Your task to perform on an android device: Go to Yahoo.com Image 0: 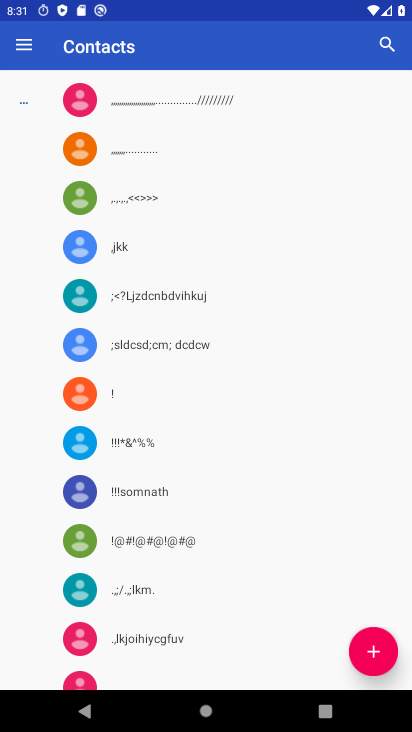
Step 0: press home button
Your task to perform on an android device: Go to Yahoo.com Image 1: 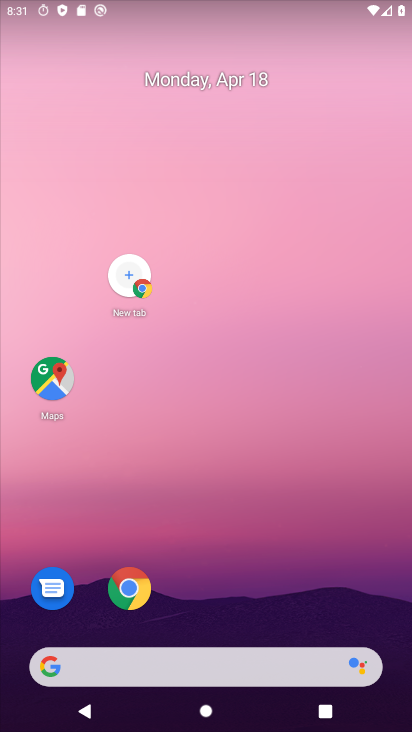
Step 1: drag from (357, 388) to (374, 106)
Your task to perform on an android device: Go to Yahoo.com Image 2: 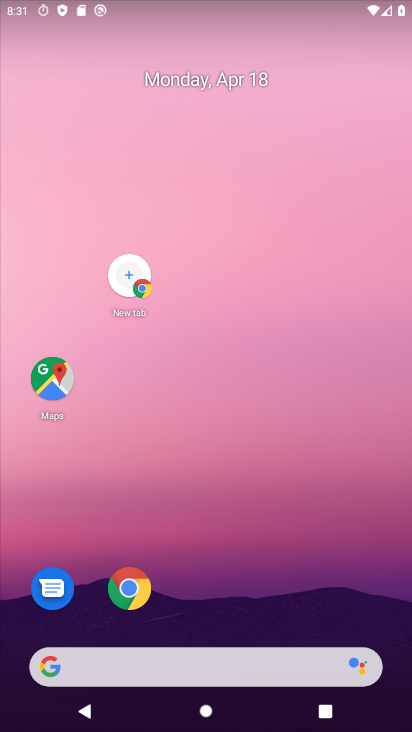
Step 2: drag from (320, 535) to (353, 117)
Your task to perform on an android device: Go to Yahoo.com Image 3: 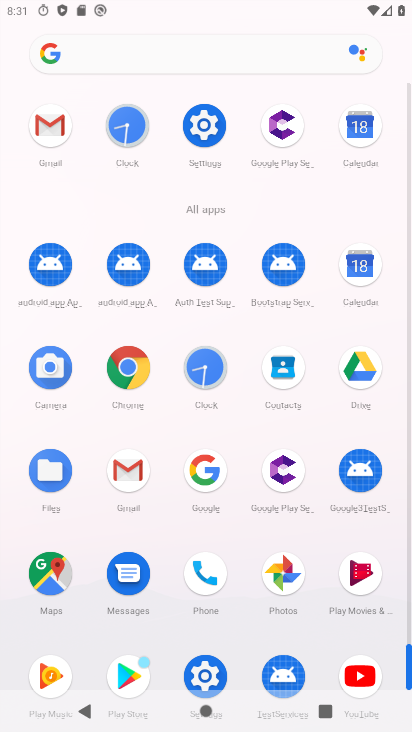
Step 3: drag from (398, 576) to (412, 344)
Your task to perform on an android device: Go to Yahoo.com Image 4: 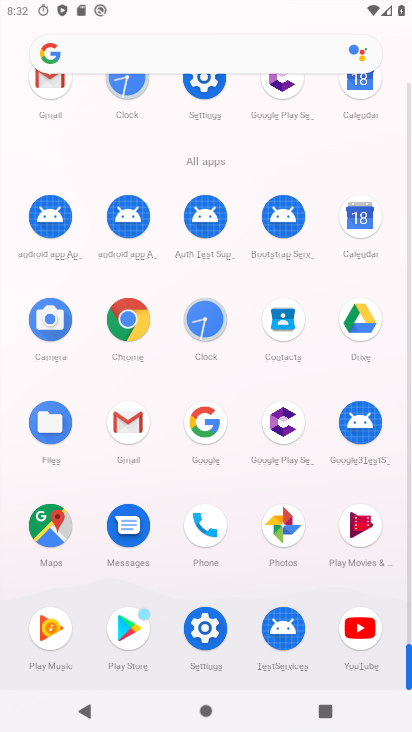
Step 4: click (136, 323)
Your task to perform on an android device: Go to Yahoo.com Image 5: 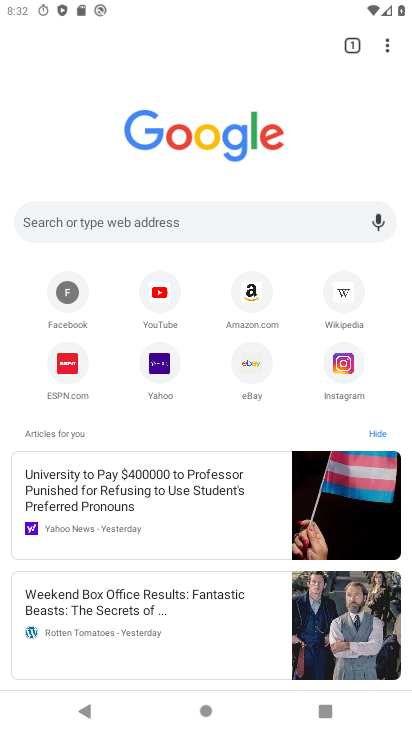
Step 5: click (156, 369)
Your task to perform on an android device: Go to Yahoo.com Image 6: 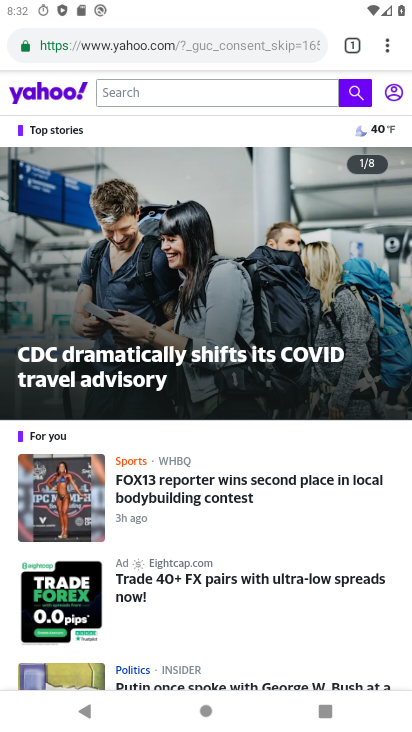
Step 6: task complete